Your task to perform on an android device: Open the stopwatch Image 0: 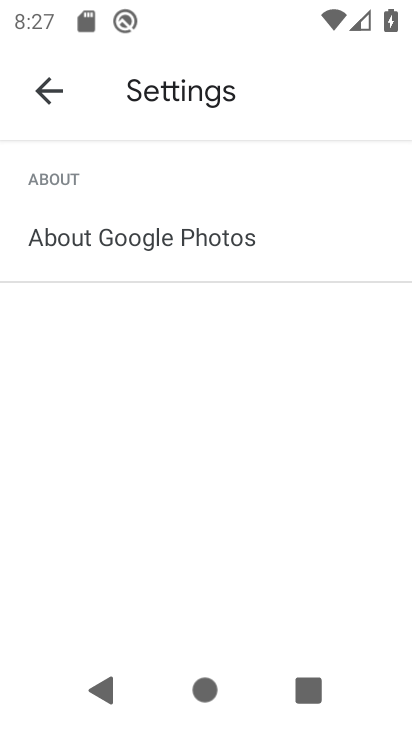
Step 0: press home button
Your task to perform on an android device: Open the stopwatch Image 1: 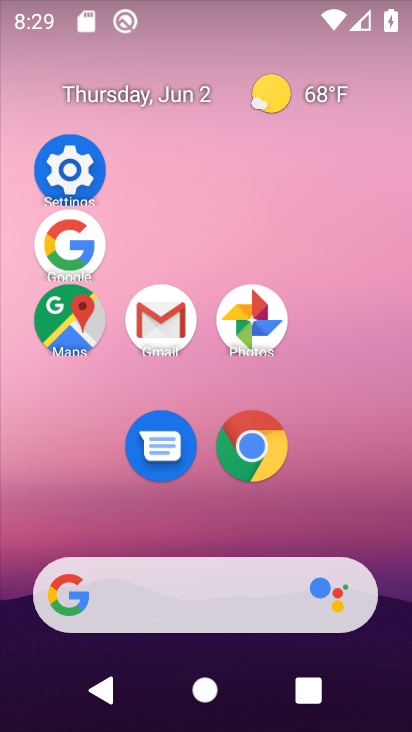
Step 1: drag from (324, 498) to (323, 99)
Your task to perform on an android device: Open the stopwatch Image 2: 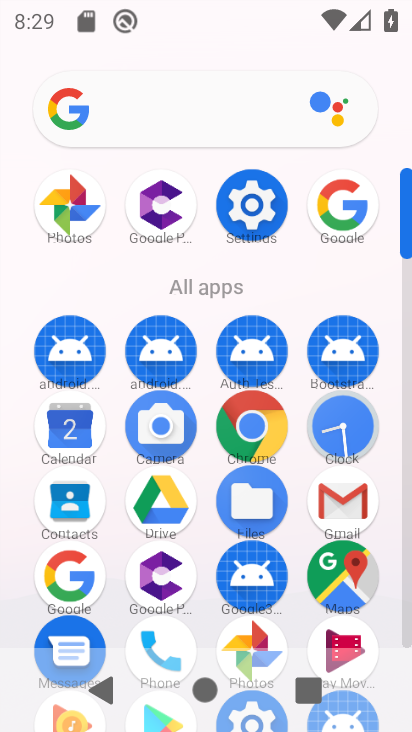
Step 2: drag from (355, 415) to (164, 187)
Your task to perform on an android device: Open the stopwatch Image 3: 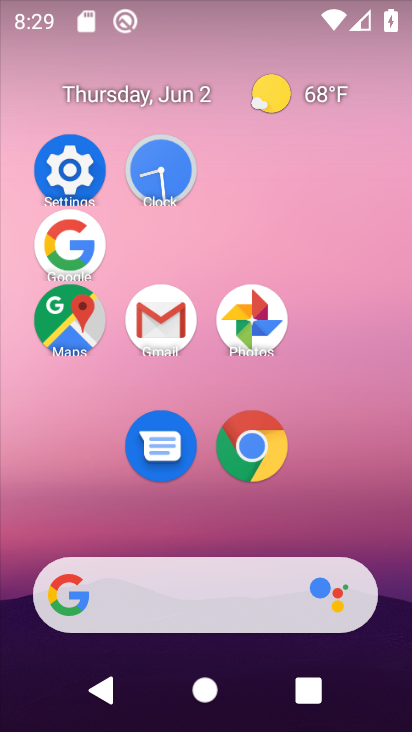
Step 3: click (163, 186)
Your task to perform on an android device: Open the stopwatch Image 4: 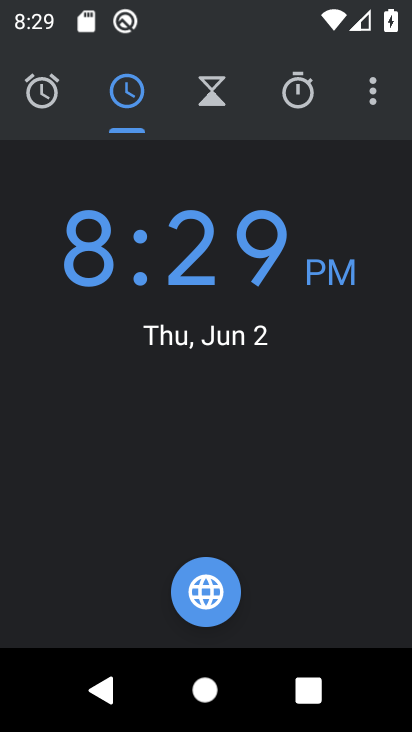
Step 4: click (310, 89)
Your task to perform on an android device: Open the stopwatch Image 5: 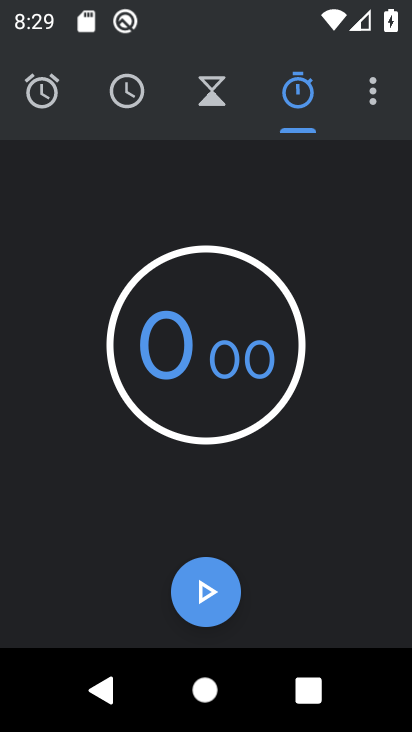
Step 5: task complete